Your task to perform on an android device: What's on my calendar today? Image 0: 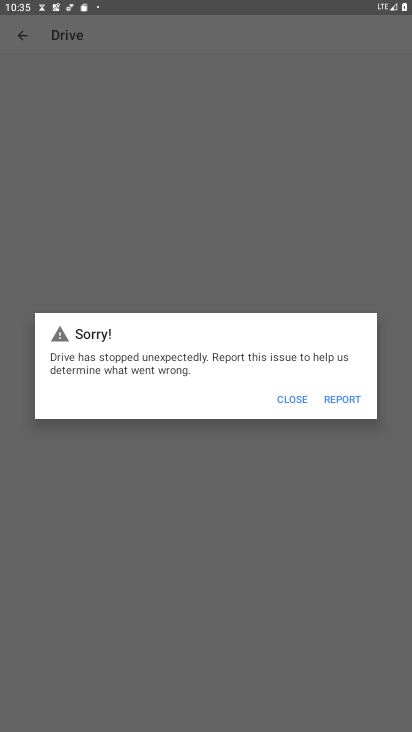
Step 0: press home button
Your task to perform on an android device: What's on my calendar today? Image 1: 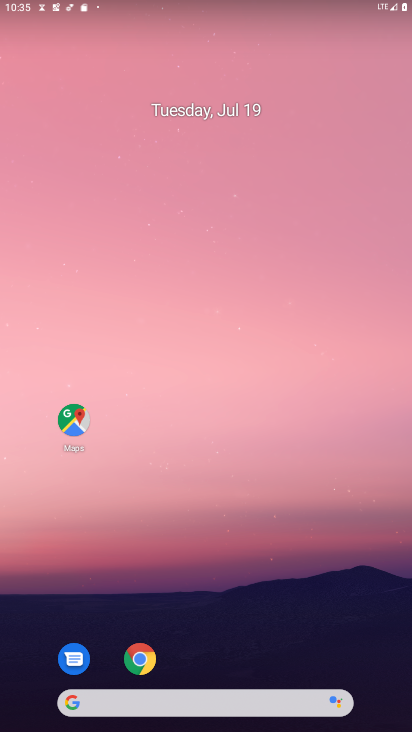
Step 1: drag from (195, 595) to (227, 6)
Your task to perform on an android device: What's on my calendar today? Image 2: 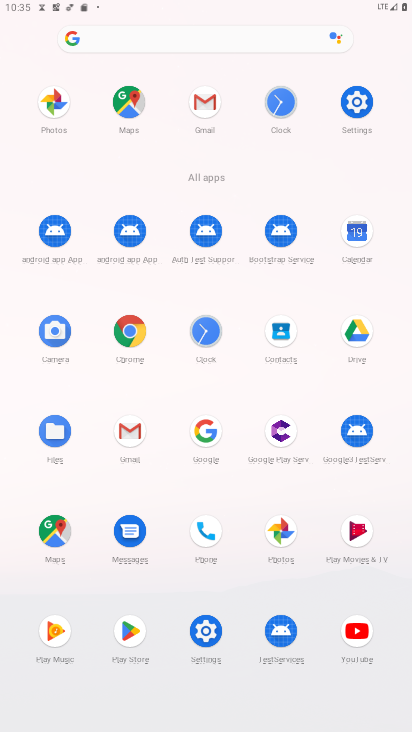
Step 2: click (360, 239)
Your task to perform on an android device: What's on my calendar today? Image 3: 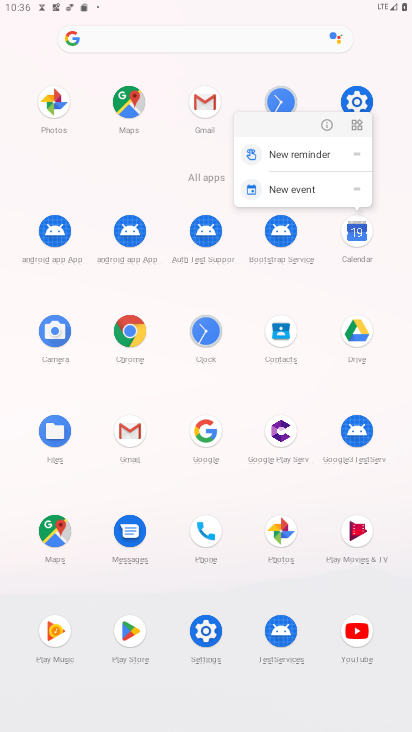
Step 3: click (325, 128)
Your task to perform on an android device: What's on my calendar today? Image 4: 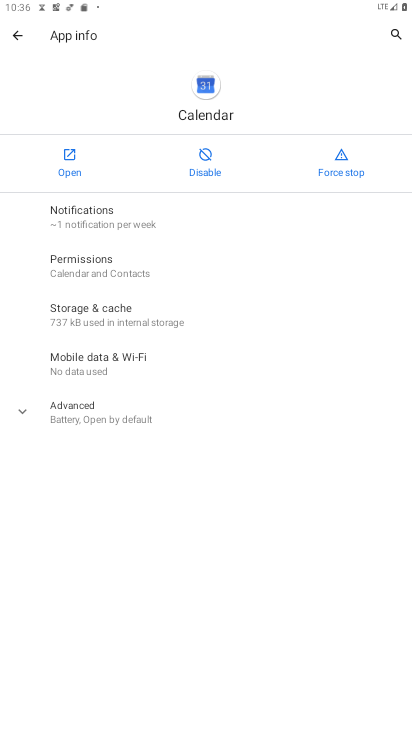
Step 4: click (81, 158)
Your task to perform on an android device: What's on my calendar today? Image 5: 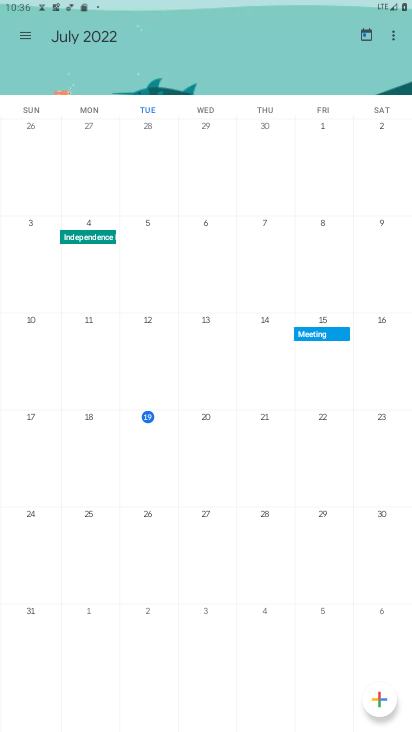
Step 5: click (368, 34)
Your task to perform on an android device: What's on my calendar today? Image 6: 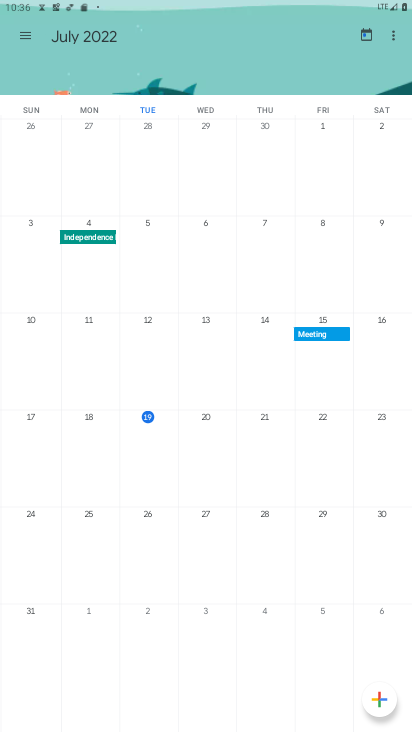
Step 6: click (145, 418)
Your task to perform on an android device: What's on my calendar today? Image 7: 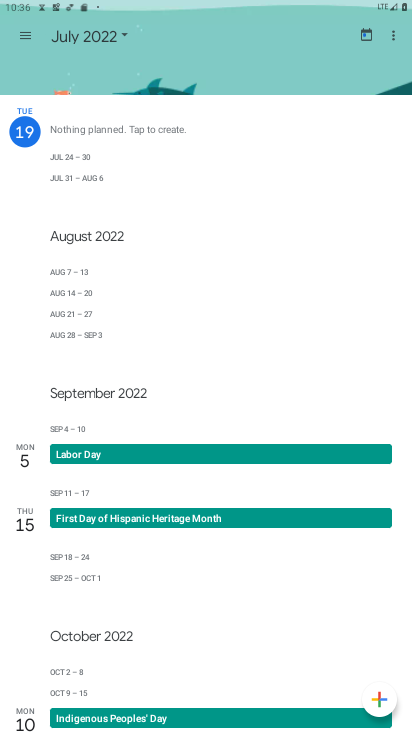
Step 7: task complete